Your task to perform on an android device: turn on translation in the chrome app Image 0: 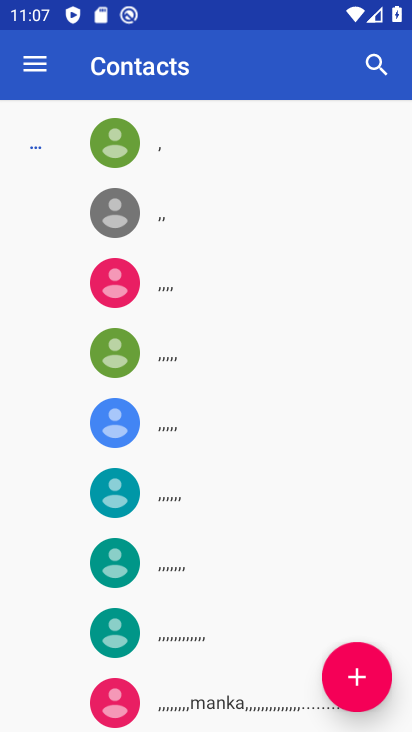
Step 0: press home button
Your task to perform on an android device: turn on translation in the chrome app Image 1: 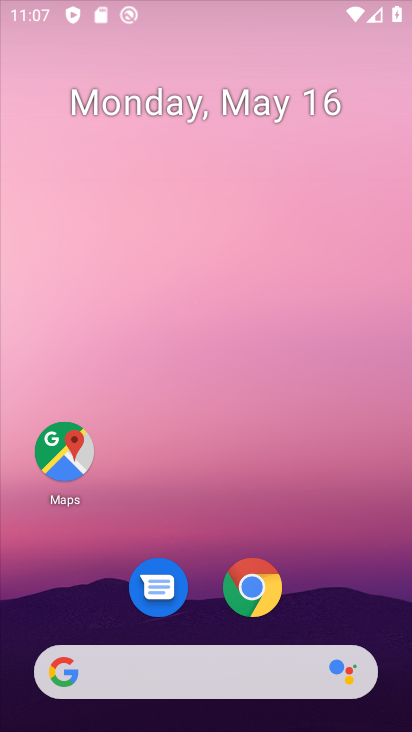
Step 1: drag from (395, 646) to (314, 15)
Your task to perform on an android device: turn on translation in the chrome app Image 2: 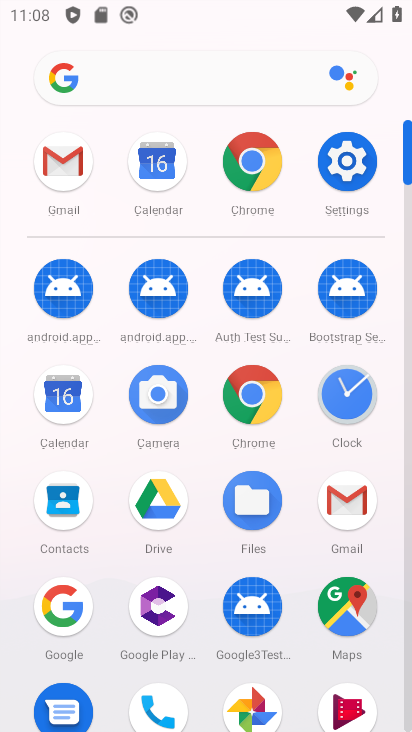
Step 2: click (258, 155)
Your task to perform on an android device: turn on translation in the chrome app Image 3: 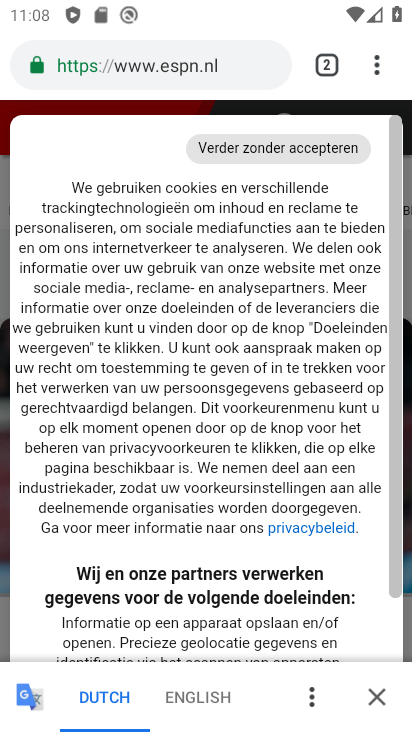
Step 3: press back button
Your task to perform on an android device: turn on translation in the chrome app Image 4: 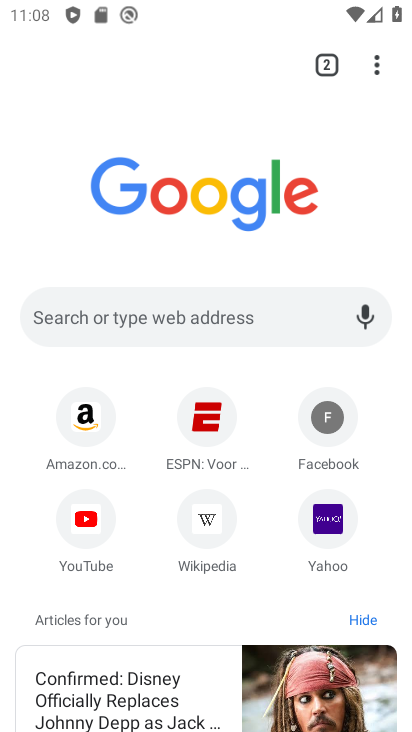
Step 4: click (377, 65)
Your task to perform on an android device: turn on translation in the chrome app Image 5: 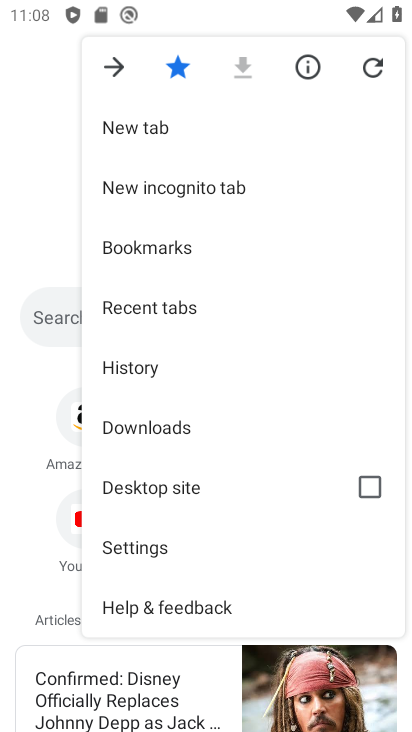
Step 5: click (177, 542)
Your task to perform on an android device: turn on translation in the chrome app Image 6: 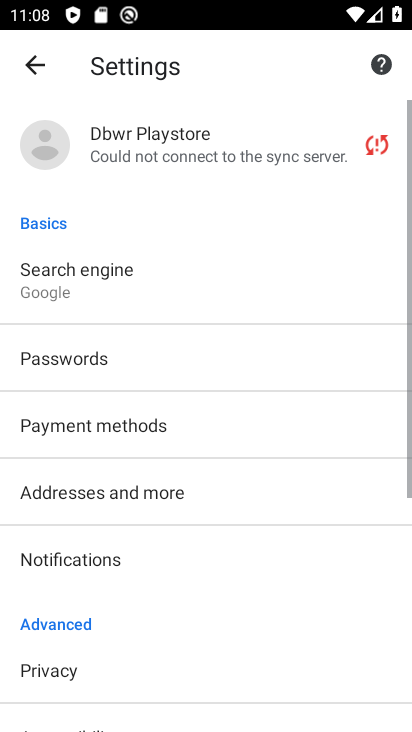
Step 6: drag from (117, 627) to (178, 75)
Your task to perform on an android device: turn on translation in the chrome app Image 7: 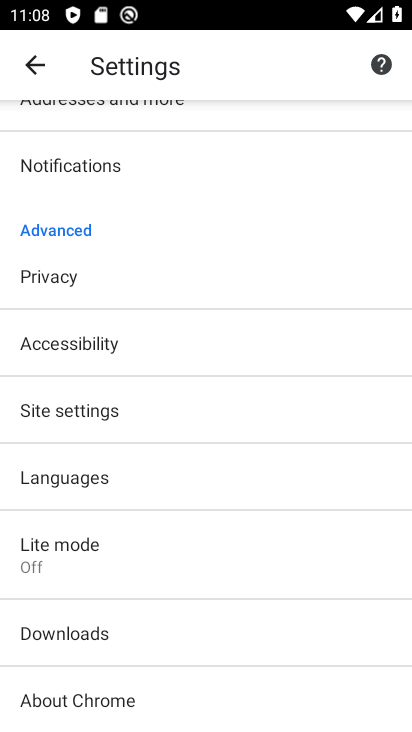
Step 7: click (86, 477)
Your task to perform on an android device: turn on translation in the chrome app Image 8: 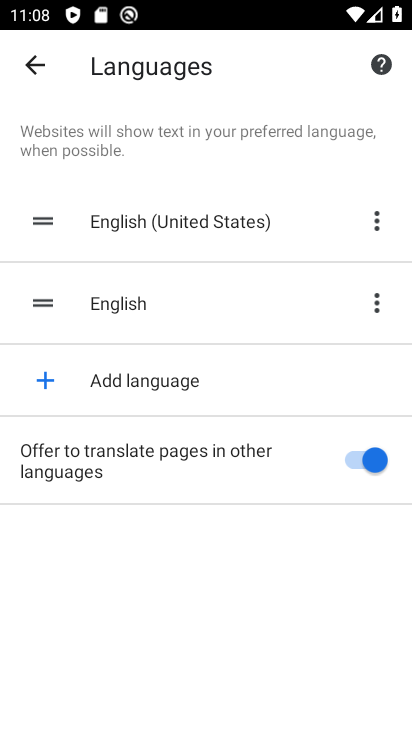
Step 8: task complete